Your task to perform on an android device: Open settings on Google Maps Image 0: 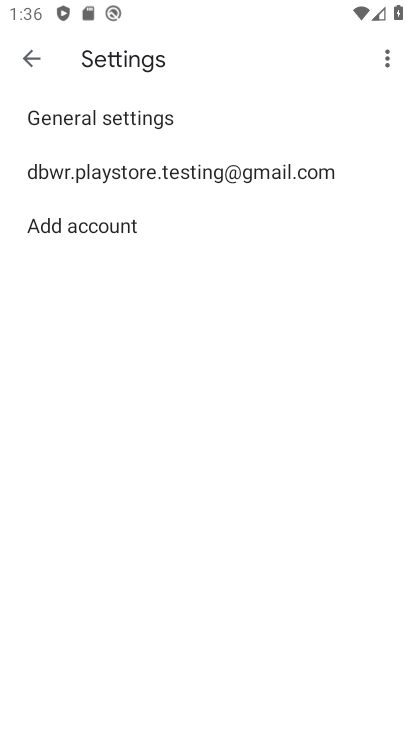
Step 0: press home button
Your task to perform on an android device: Open settings on Google Maps Image 1: 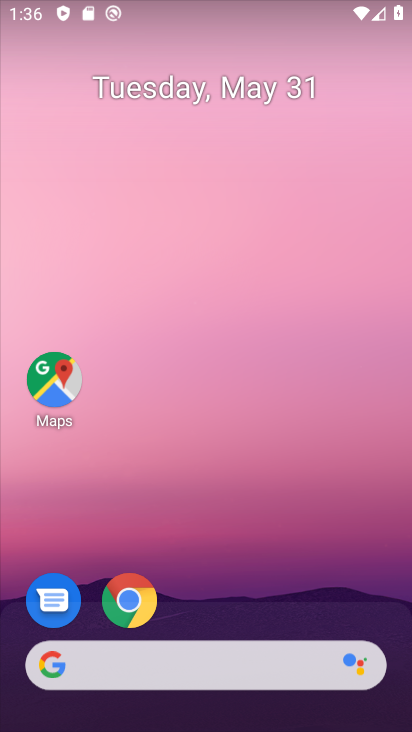
Step 1: click (63, 384)
Your task to perform on an android device: Open settings on Google Maps Image 2: 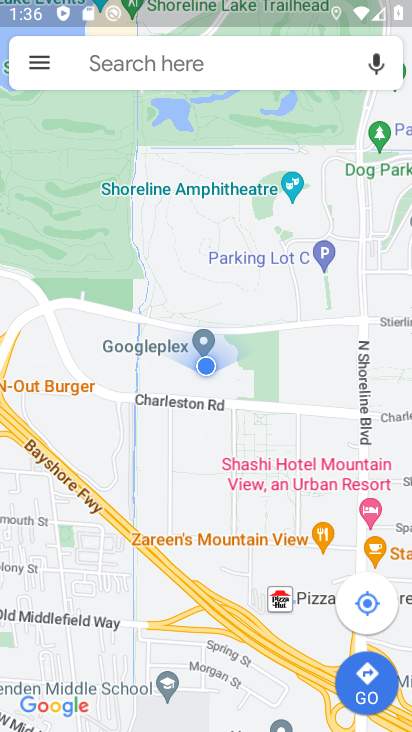
Step 2: click (34, 61)
Your task to perform on an android device: Open settings on Google Maps Image 3: 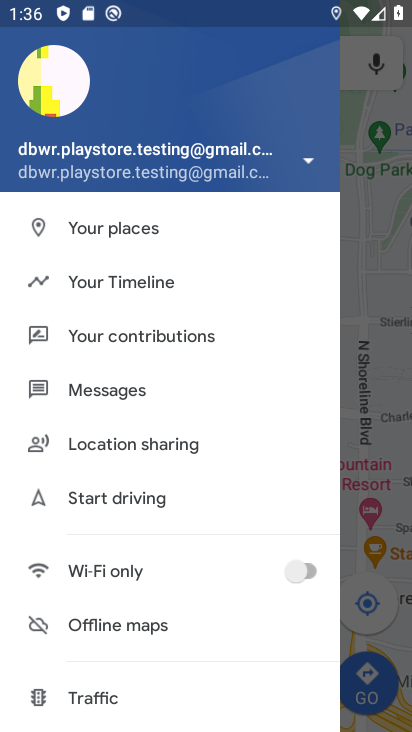
Step 3: drag from (156, 636) to (164, 128)
Your task to perform on an android device: Open settings on Google Maps Image 4: 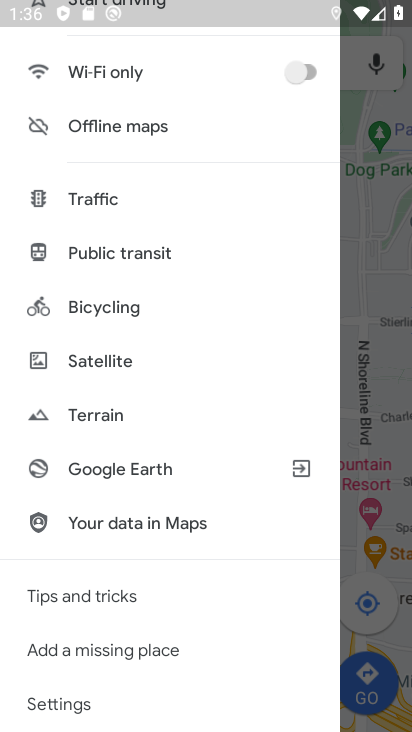
Step 4: drag from (113, 616) to (145, 155)
Your task to perform on an android device: Open settings on Google Maps Image 5: 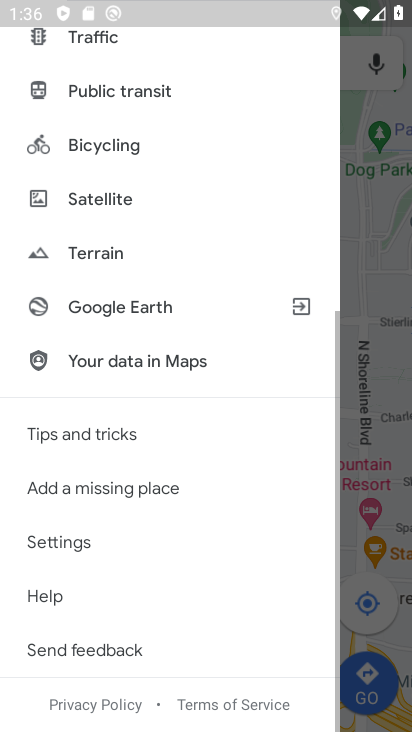
Step 5: click (105, 531)
Your task to perform on an android device: Open settings on Google Maps Image 6: 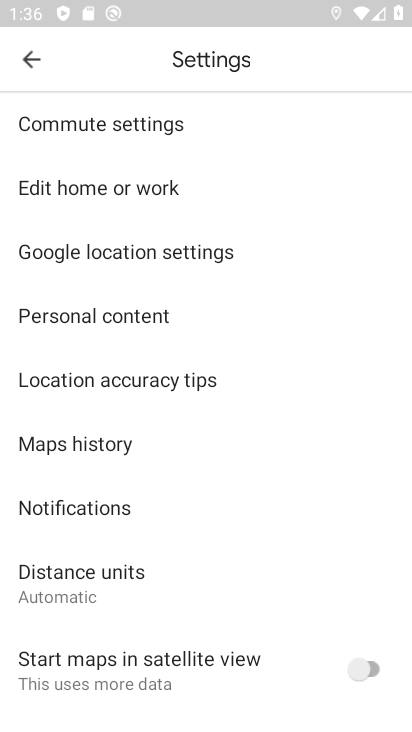
Step 6: task complete